Your task to perform on an android device: turn notification dots on Image 0: 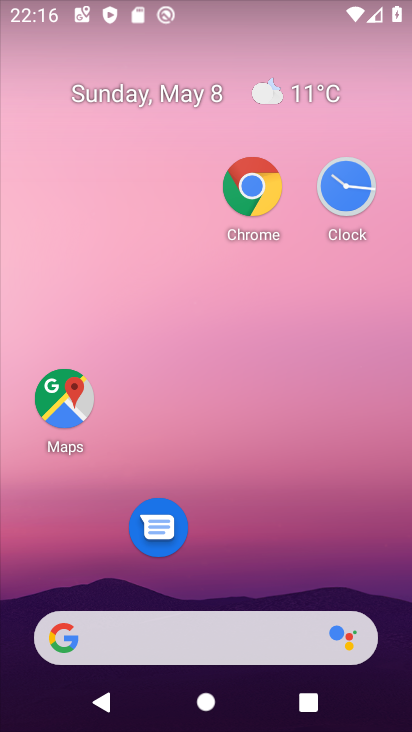
Step 0: drag from (276, 469) to (304, 54)
Your task to perform on an android device: turn notification dots on Image 1: 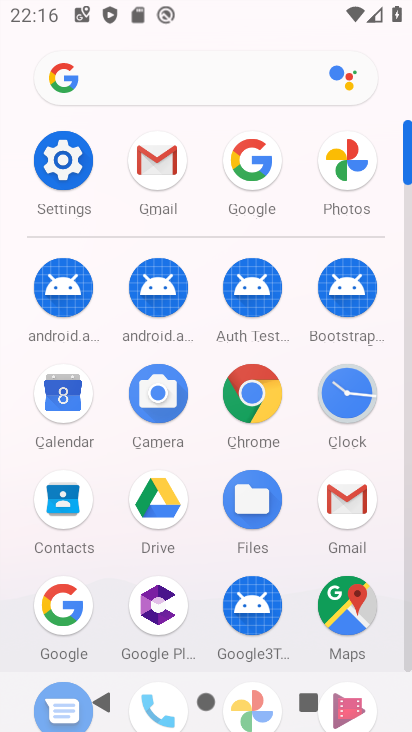
Step 1: drag from (196, 563) to (266, 111)
Your task to perform on an android device: turn notification dots on Image 2: 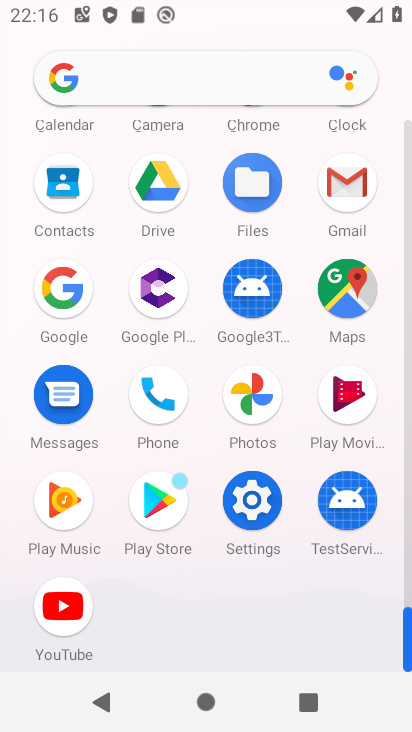
Step 2: click (238, 496)
Your task to perform on an android device: turn notification dots on Image 3: 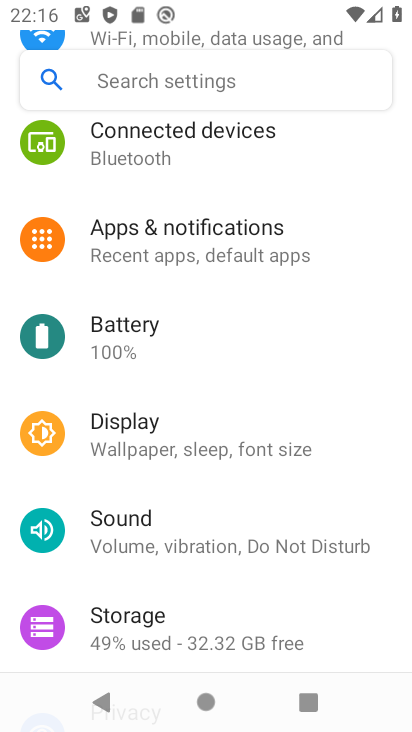
Step 3: click (176, 250)
Your task to perform on an android device: turn notification dots on Image 4: 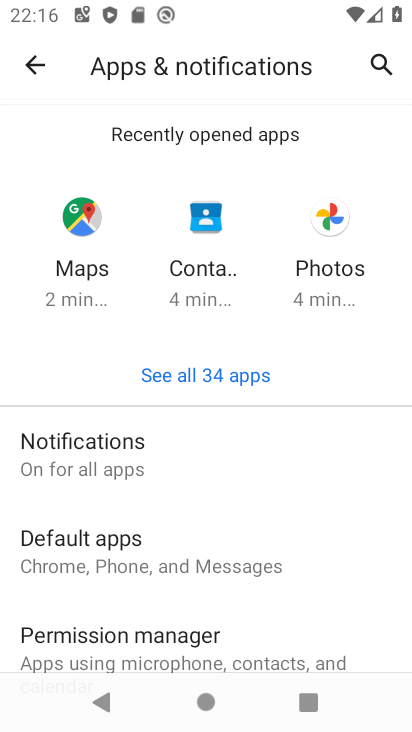
Step 4: drag from (231, 524) to (238, 206)
Your task to perform on an android device: turn notification dots on Image 5: 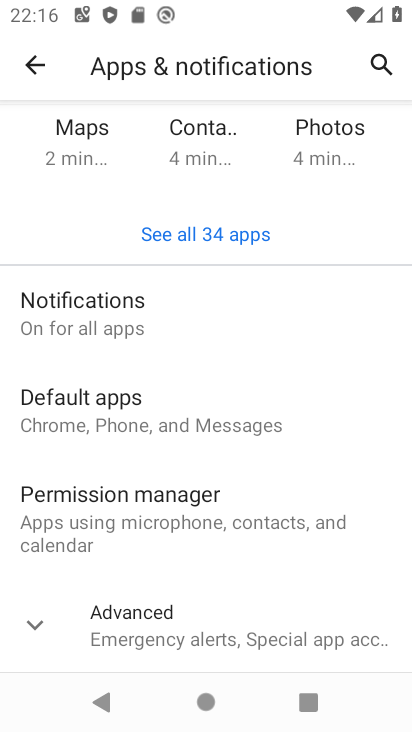
Step 5: click (118, 302)
Your task to perform on an android device: turn notification dots on Image 6: 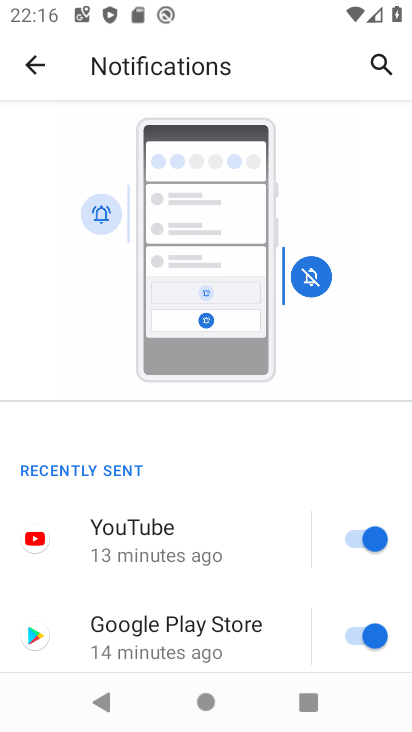
Step 6: drag from (200, 511) to (199, 193)
Your task to perform on an android device: turn notification dots on Image 7: 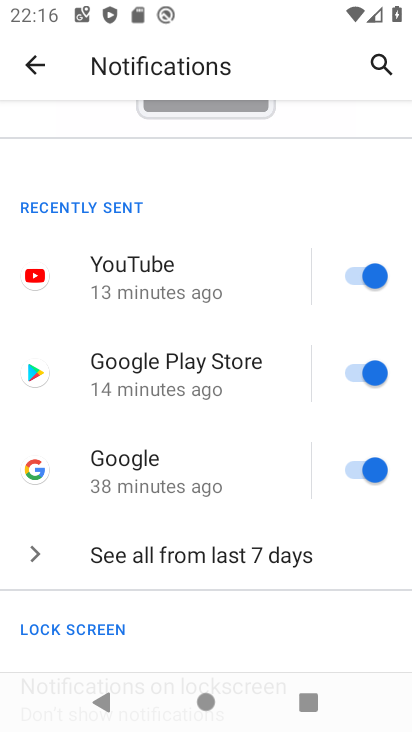
Step 7: drag from (141, 538) to (187, 212)
Your task to perform on an android device: turn notification dots on Image 8: 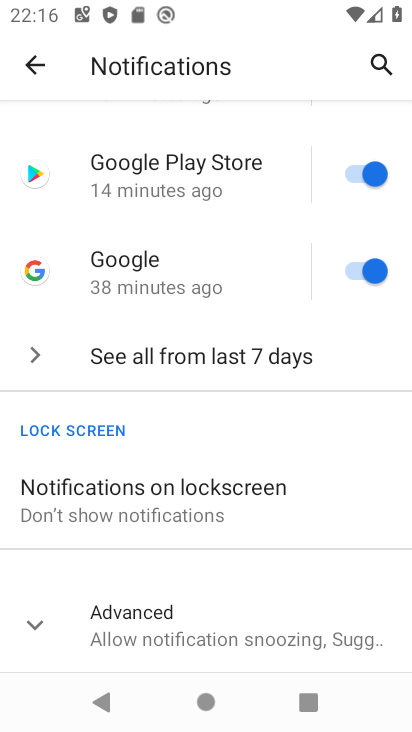
Step 8: click (185, 618)
Your task to perform on an android device: turn notification dots on Image 9: 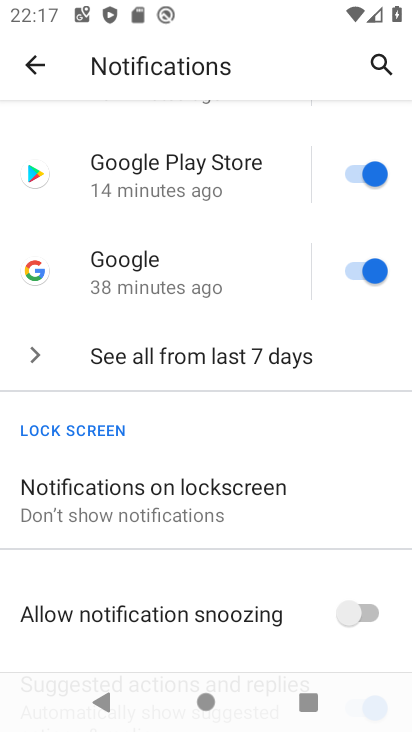
Step 9: task complete